Your task to perform on an android device: Open Youtube and go to "Your channel" Image 0: 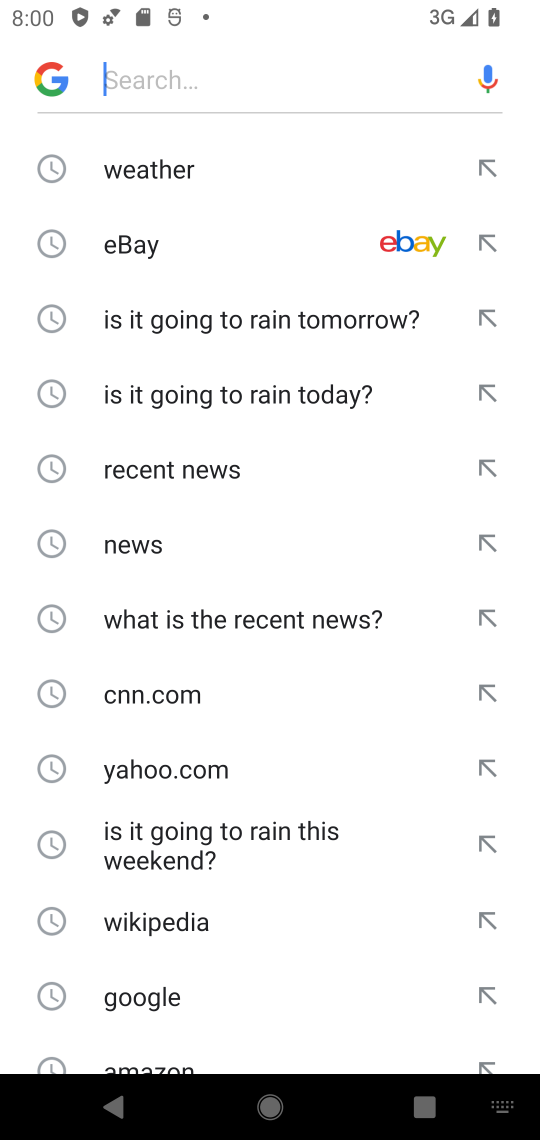
Step 0: press home button
Your task to perform on an android device: Open Youtube and go to "Your channel" Image 1: 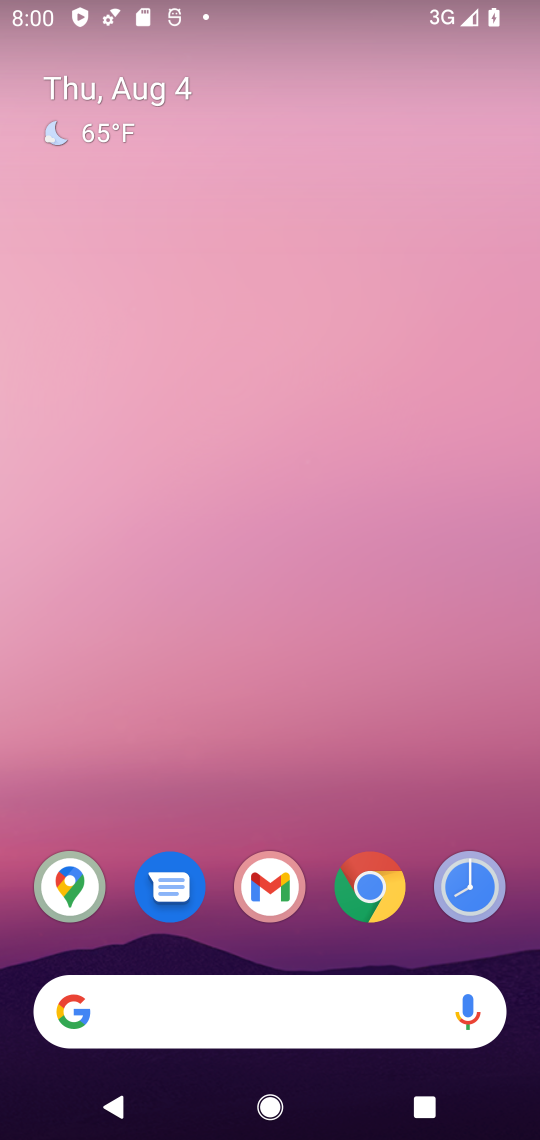
Step 1: drag from (235, 934) to (176, 380)
Your task to perform on an android device: Open Youtube and go to "Your channel" Image 2: 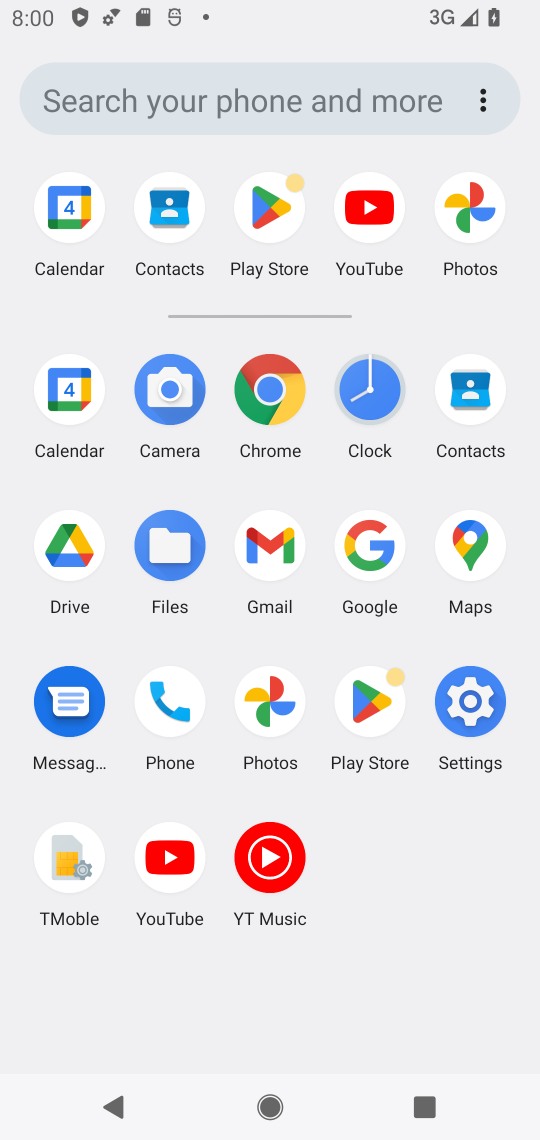
Step 2: click (155, 859)
Your task to perform on an android device: Open Youtube and go to "Your channel" Image 3: 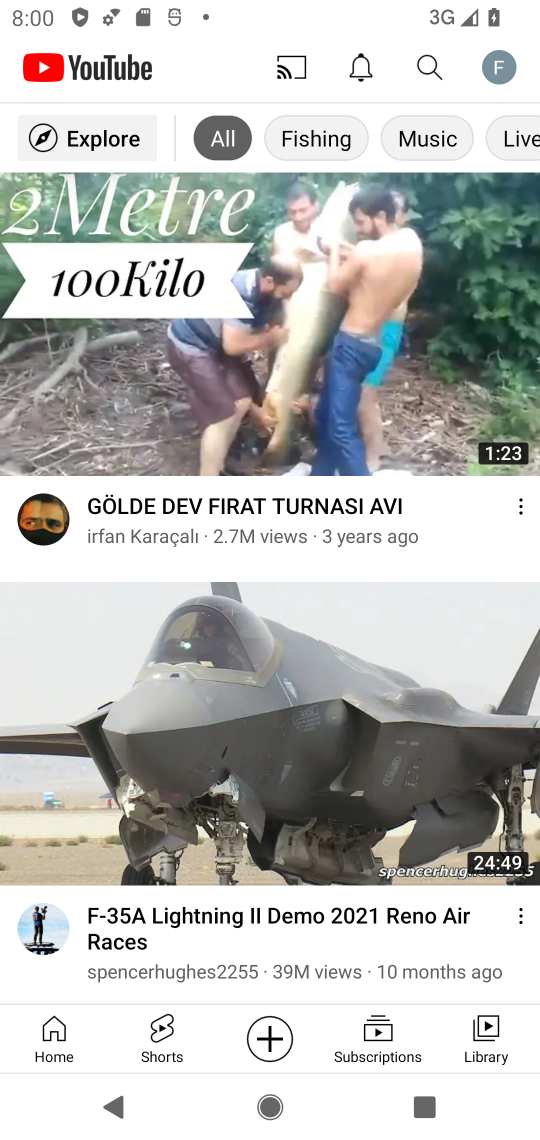
Step 3: click (495, 1036)
Your task to perform on an android device: Open Youtube and go to "Your channel" Image 4: 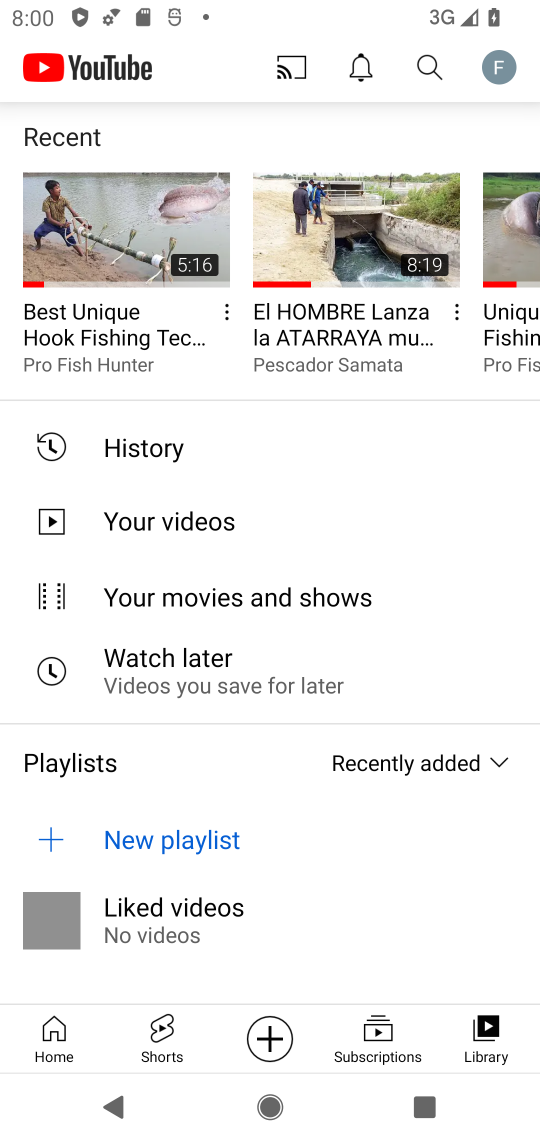
Step 4: click (487, 61)
Your task to perform on an android device: Open Youtube and go to "Your channel" Image 5: 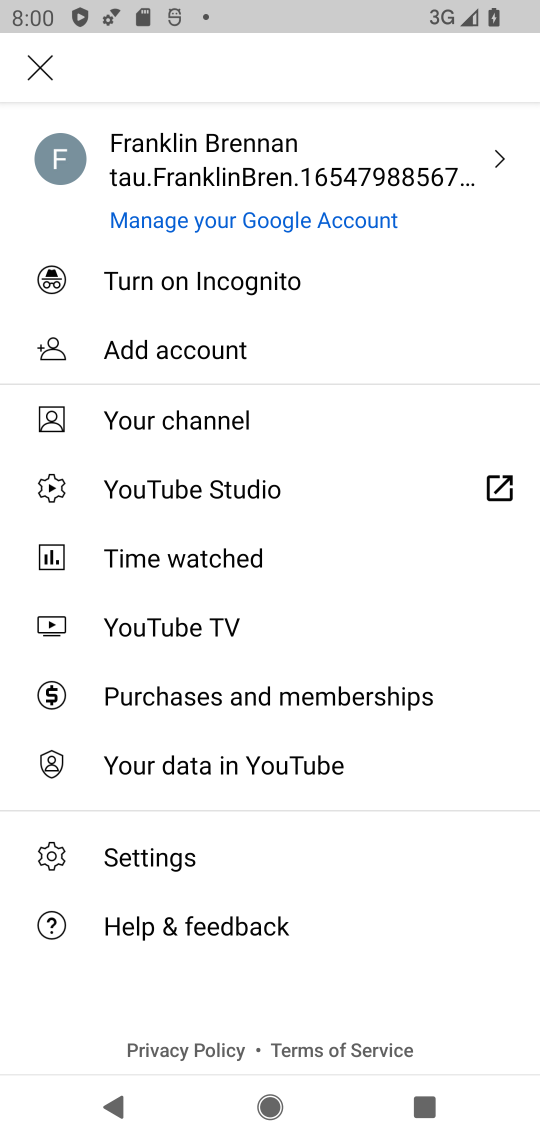
Step 5: click (131, 413)
Your task to perform on an android device: Open Youtube and go to "Your channel" Image 6: 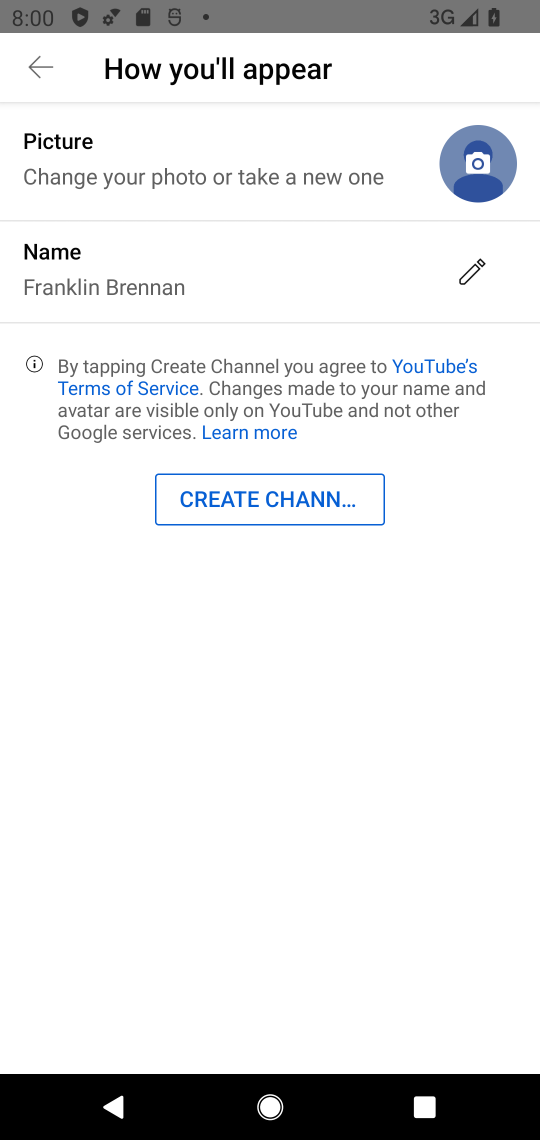
Step 6: task complete